Your task to perform on an android device: Check the news Image 0: 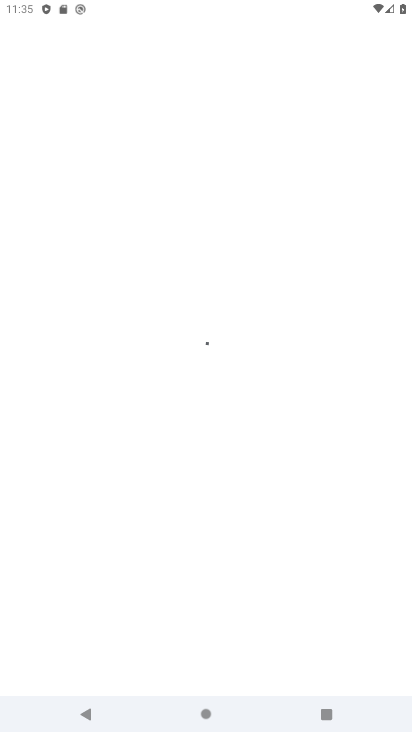
Step 0: press home button
Your task to perform on an android device: Check the news Image 1: 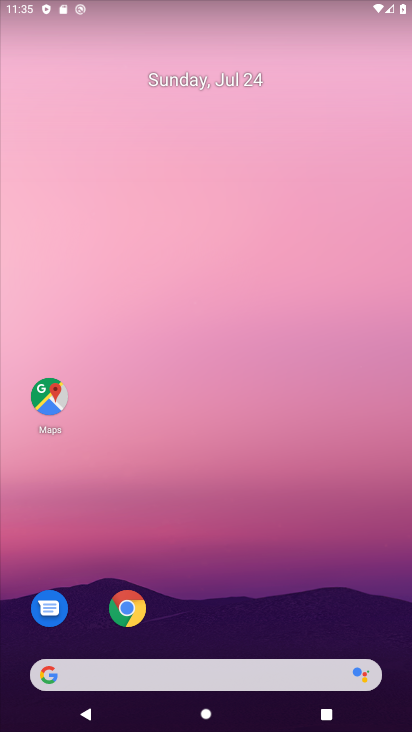
Step 1: click (187, 665)
Your task to perform on an android device: Check the news Image 2: 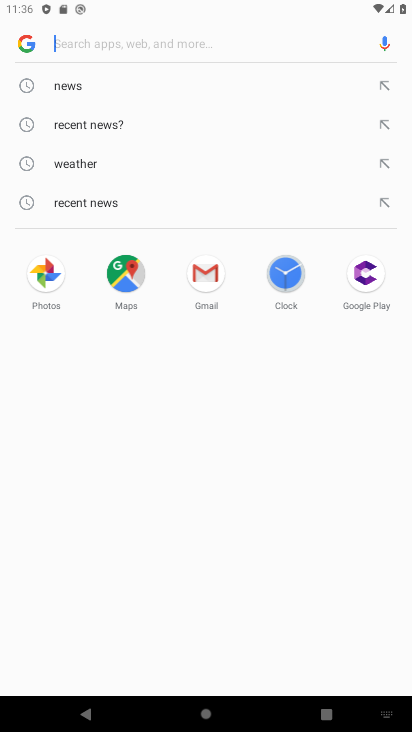
Step 2: click (137, 40)
Your task to perform on an android device: Check the news Image 3: 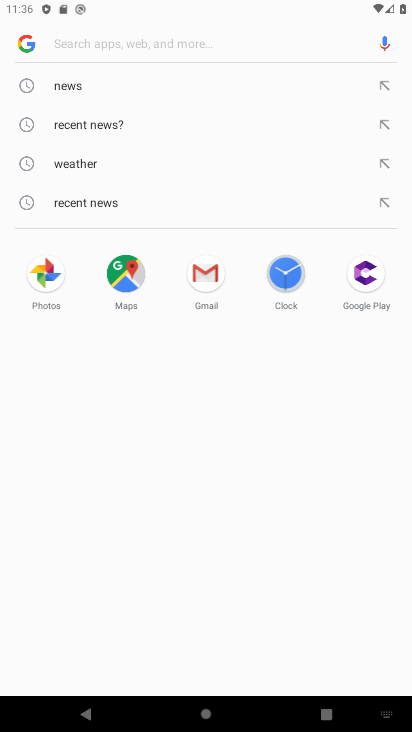
Step 3: click (110, 88)
Your task to perform on an android device: Check the news Image 4: 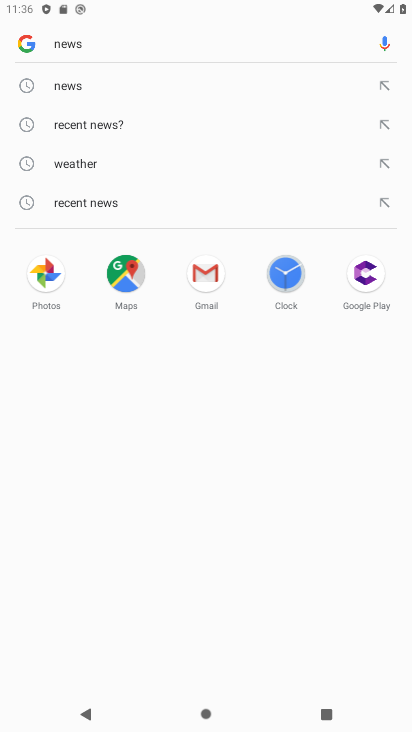
Step 4: click (99, 124)
Your task to perform on an android device: Check the news Image 5: 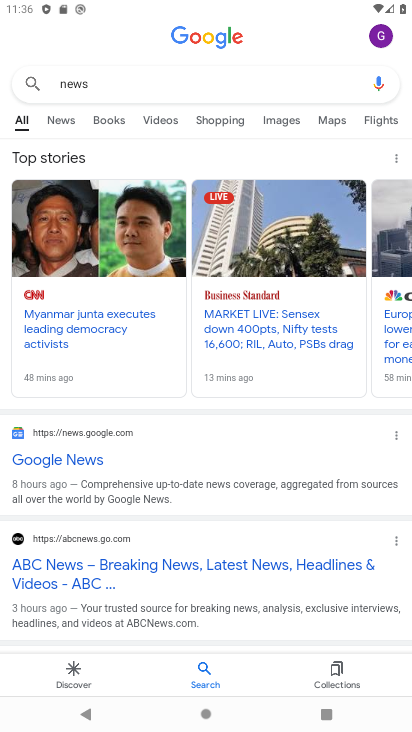
Step 5: task complete